Your task to perform on an android device: Open the calendar app, open the side menu, and click the "Day" option Image 0: 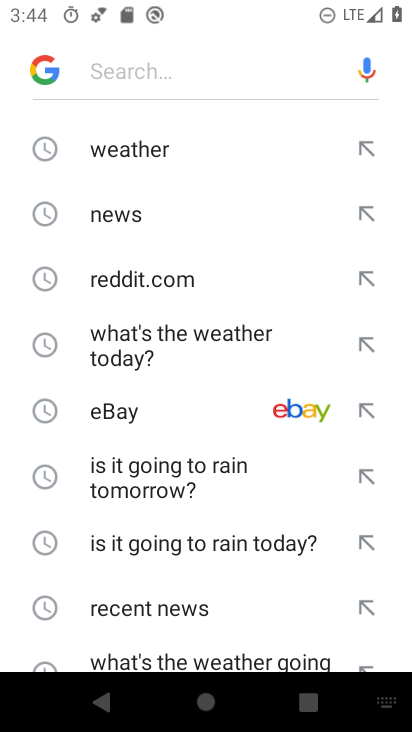
Step 0: press home button
Your task to perform on an android device: Open the calendar app, open the side menu, and click the "Day" option Image 1: 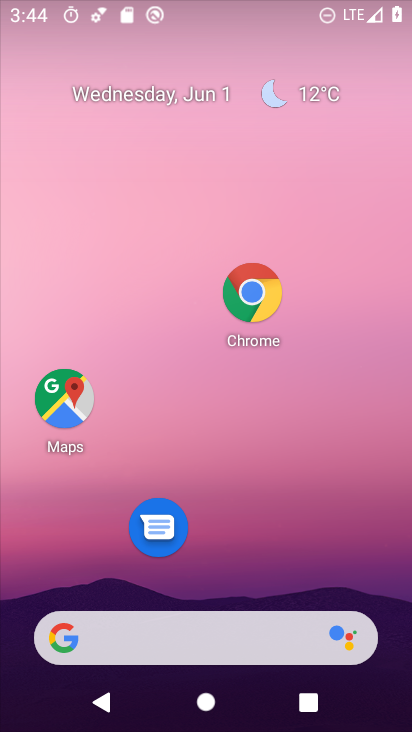
Step 1: drag from (176, 621) to (234, 170)
Your task to perform on an android device: Open the calendar app, open the side menu, and click the "Day" option Image 2: 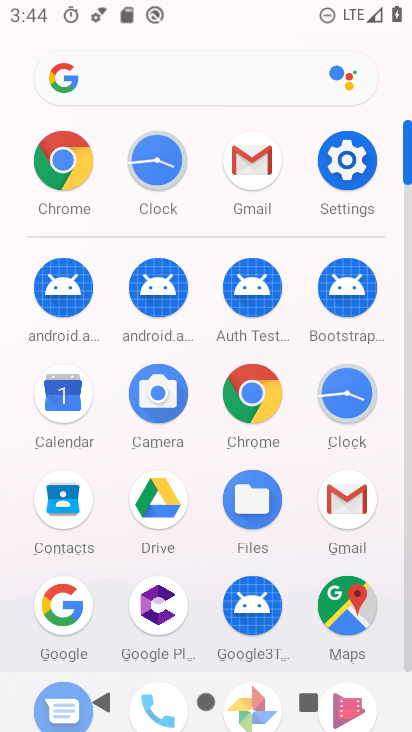
Step 2: drag from (177, 353) to (177, 210)
Your task to perform on an android device: Open the calendar app, open the side menu, and click the "Day" option Image 3: 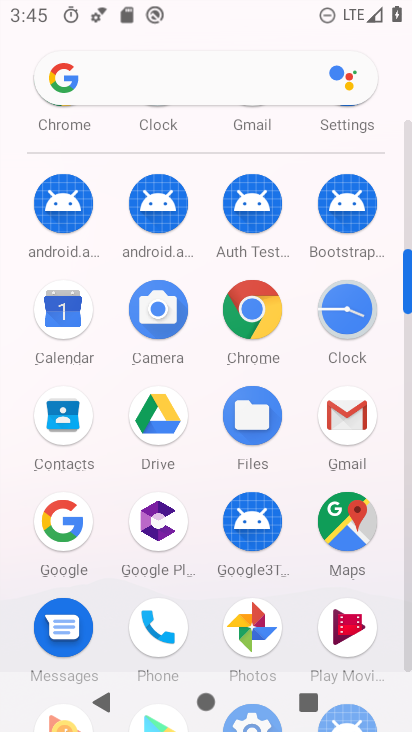
Step 3: drag from (217, 435) to (229, 200)
Your task to perform on an android device: Open the calendar app, open the side menu, and click the "Day" option Image 4: 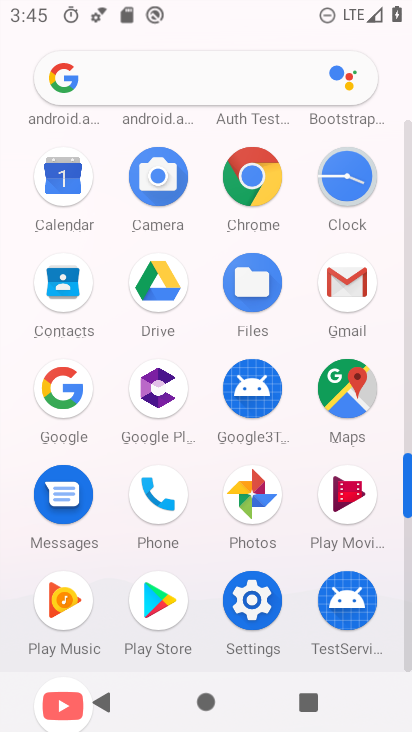
Step 4: click (55, 191)
Your task to perform on an android device: Open the calendar app, open the side menu, and click the "Day" option Image 5: 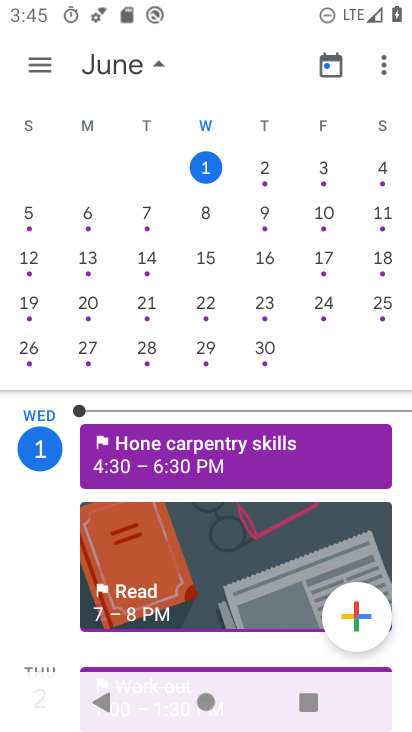
Step 5: click (36, 69)
Your task to perform on an android device: Open the calendar app, open the side menu, and click the "Day" option Image 6: 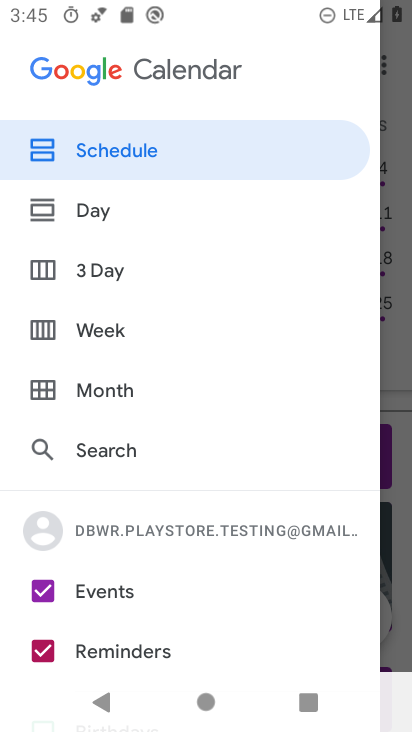
Step 6: click (152, 220)
Your task to perform on an android device: Open the calendar app, open the side menu, and click the "Day" option Image 7: 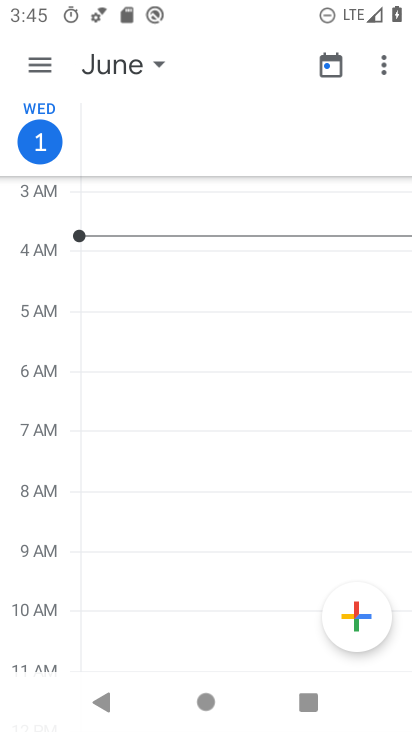
Step 7: task complete